Your task to perform on an android device: Is it going to rain this weekend? Image 0: 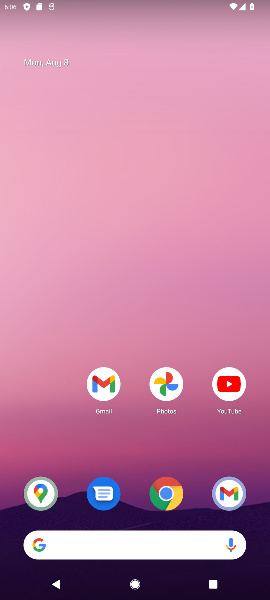
Step 0: drag from (114, 416) to (157, 110)
Your task to perform on an android device: Is it going to rain this weekend? Image 1: 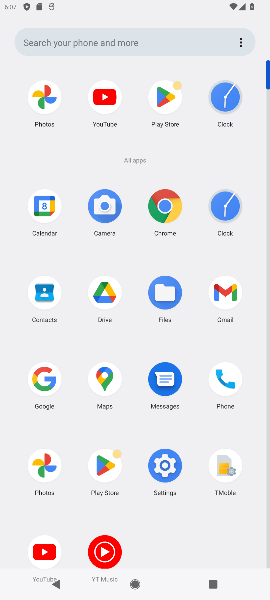
Step 1: click (36, 382)
Your task to perform on an android device: Is it going to rain this weekend? Image 2: 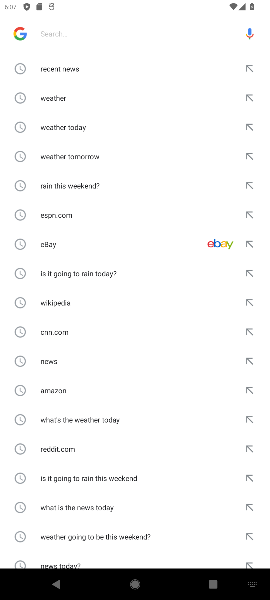
Step 2: click (93, 477)
Your task to perform on an android device: Is it going to rain this weekend? Image 3: 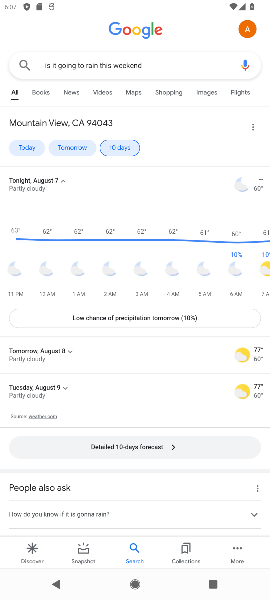
Step 3: task complete